Your task to perform on an android device: turn off notifications in google photos Image 0: 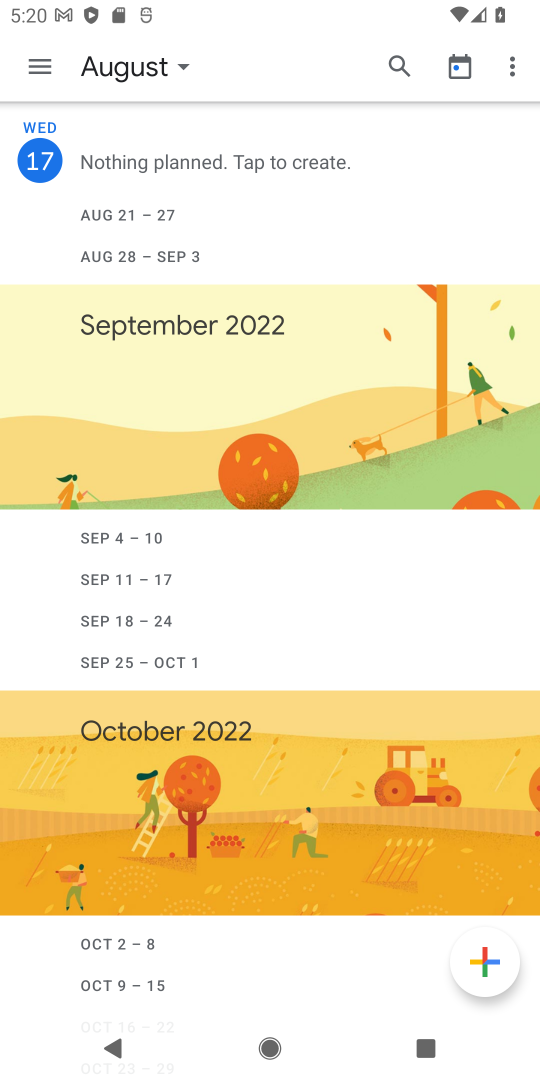
Step 0: press home button
Your task to perform on an android device: turn off notifications in google photos Image 1: 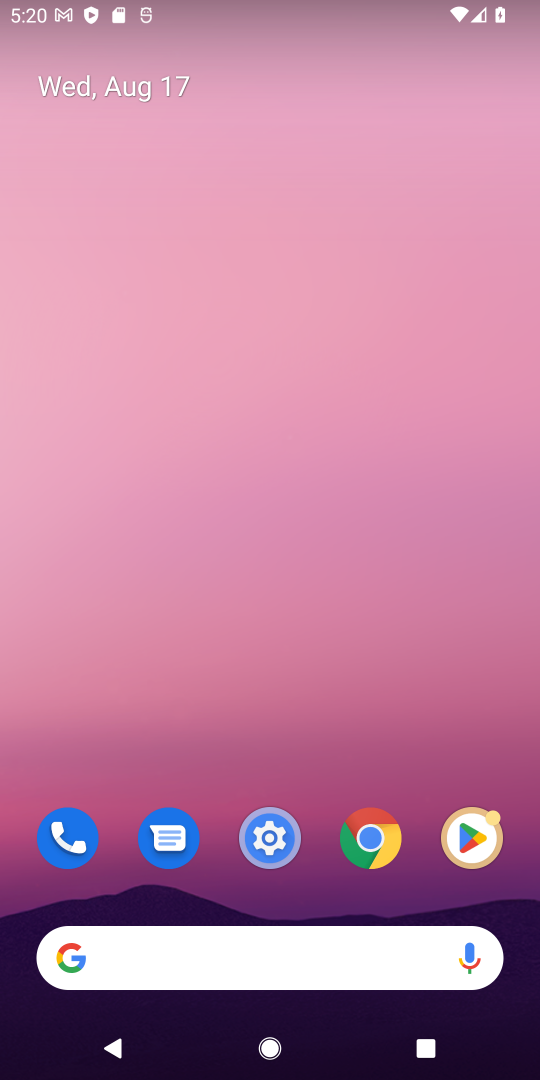
Step 1: click (517, 1014)
Your task to perform on an android device: turn off notifications in google photos Image 2: 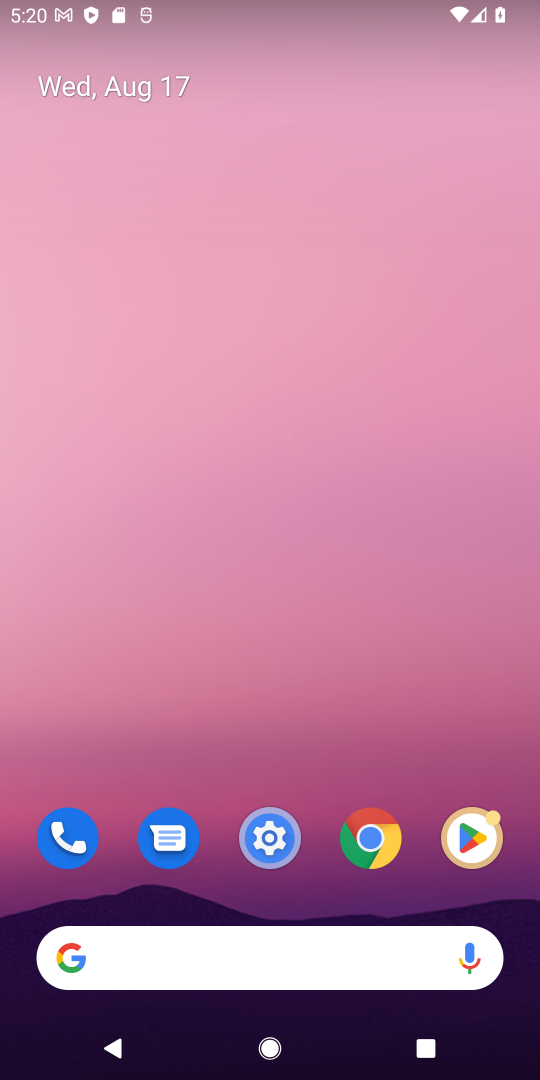
Step 2: drag from (326, 912) to (319, 11)
Your task to perform on an android device: turn off notifications in google photos Image 3: 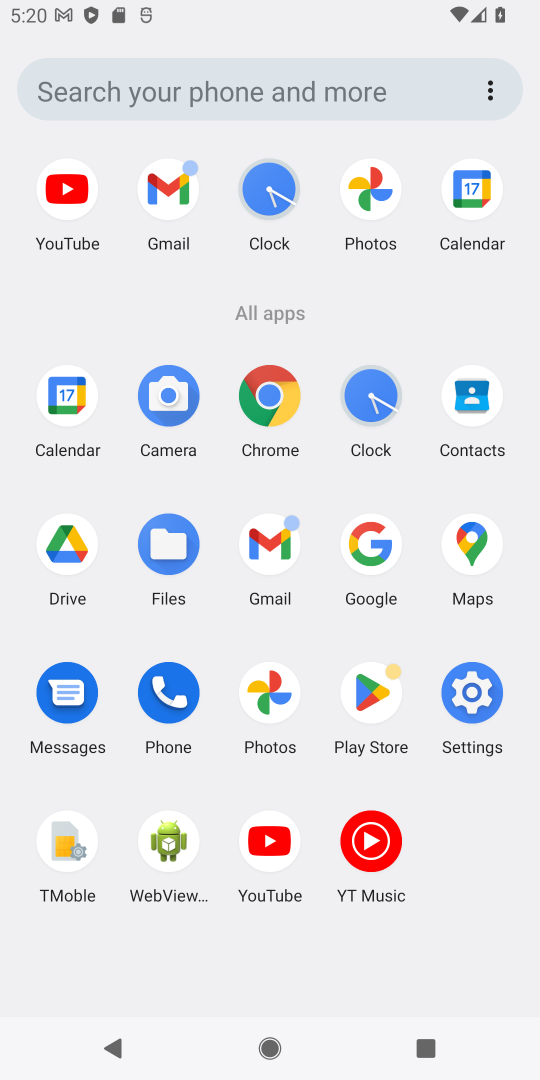
Step 3: click (259, 714)
Your task to perform on an android device: turn off notifications in google photos Image 4: 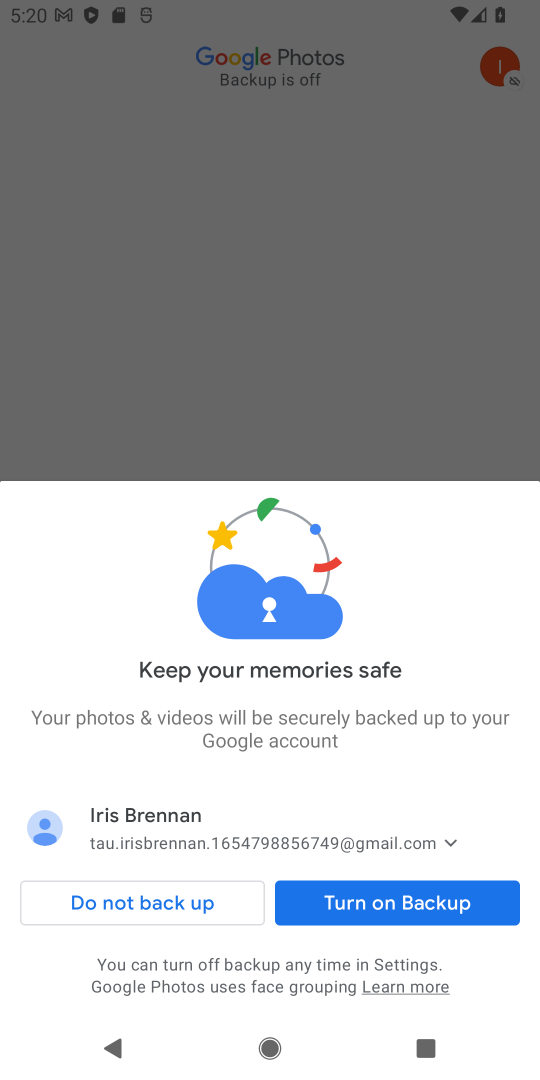
Step 4: click (512, 77)
Your task to perform on an android device: turn off notifications in google photos Image 5: 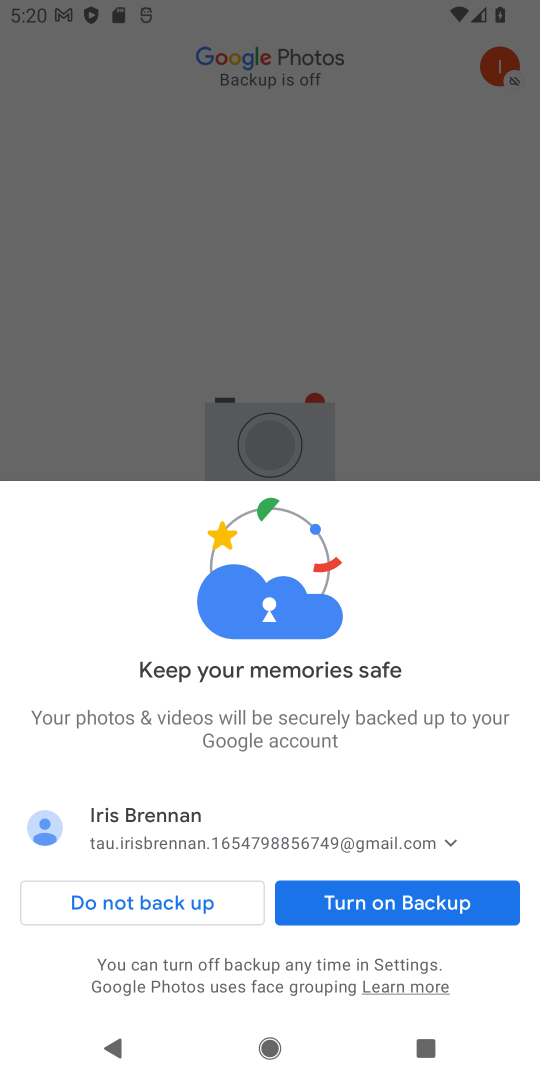
Step 5: click (373, 889)
Your task to perform on an android device: turn off notifications in google photos Image 6: 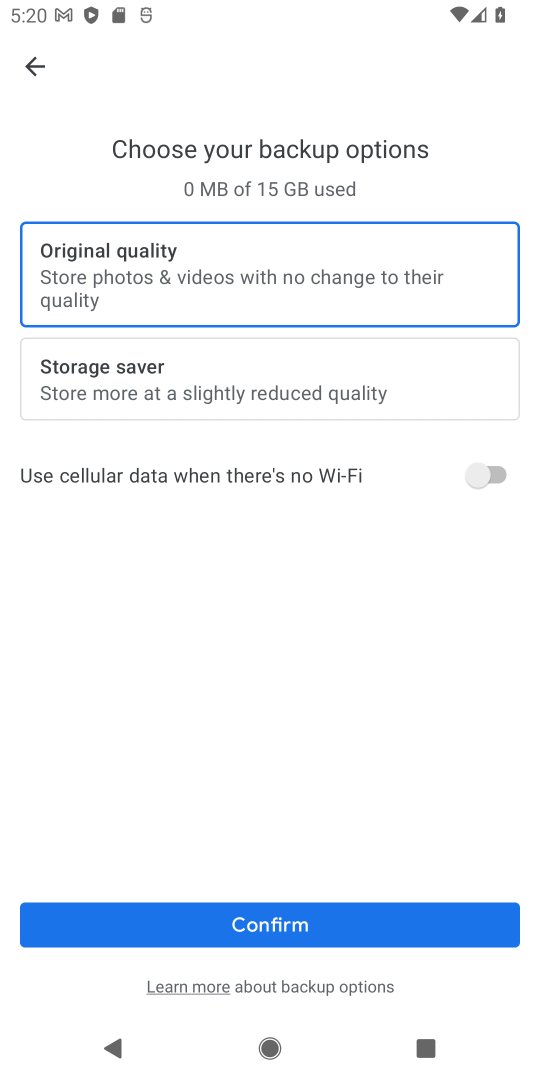
Step 6: click (326, 917)
Your task to perform on an android device: turn off notifications in google photos Image 7: 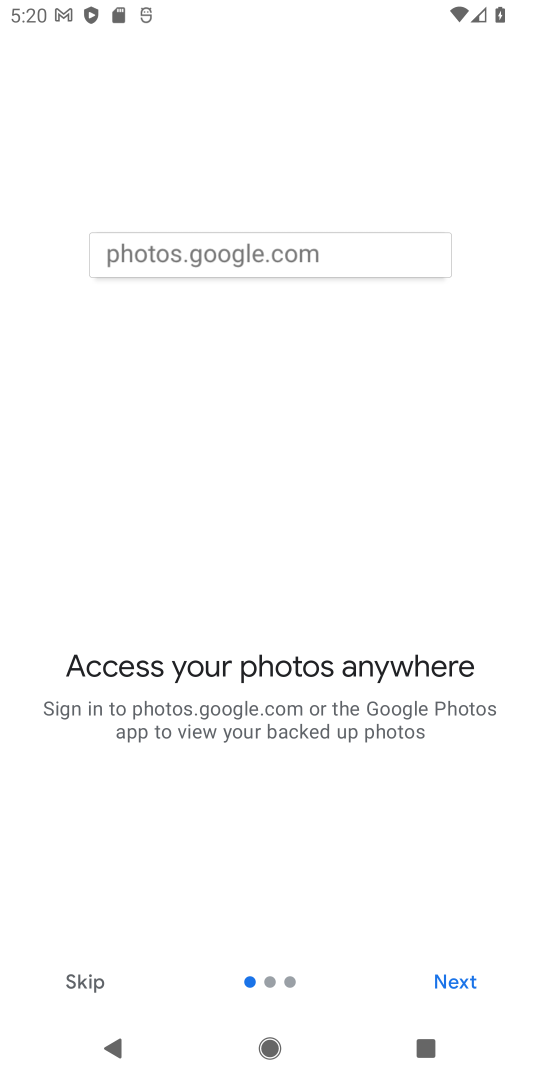
Step 7: click (64, 977)
Your task to perform on an android device: turn off notifications in google photos Image 8: 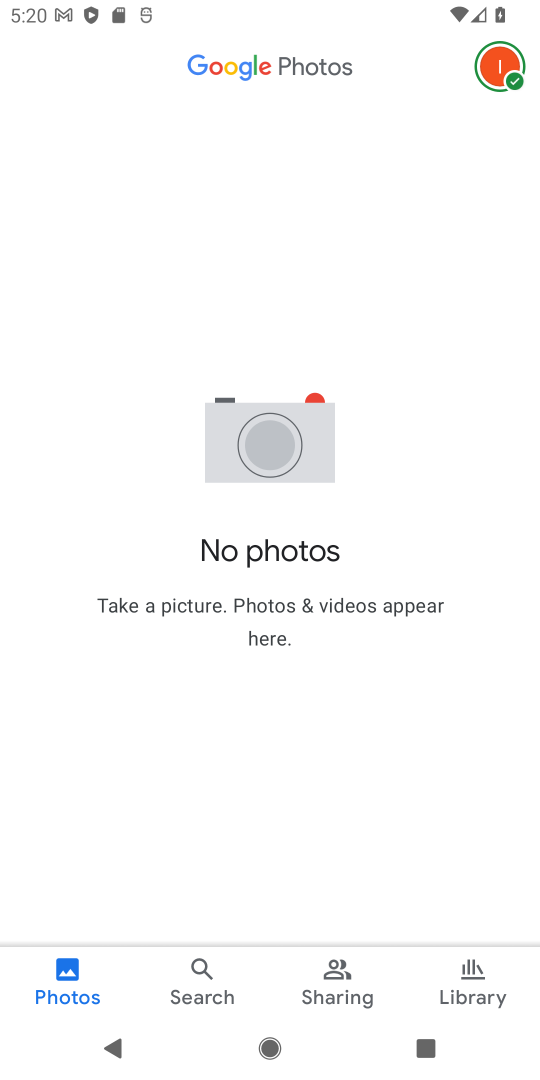
Step 8: click (503, 64)
Your task to perform on an android device: turn off notifications in google photos Image 9: 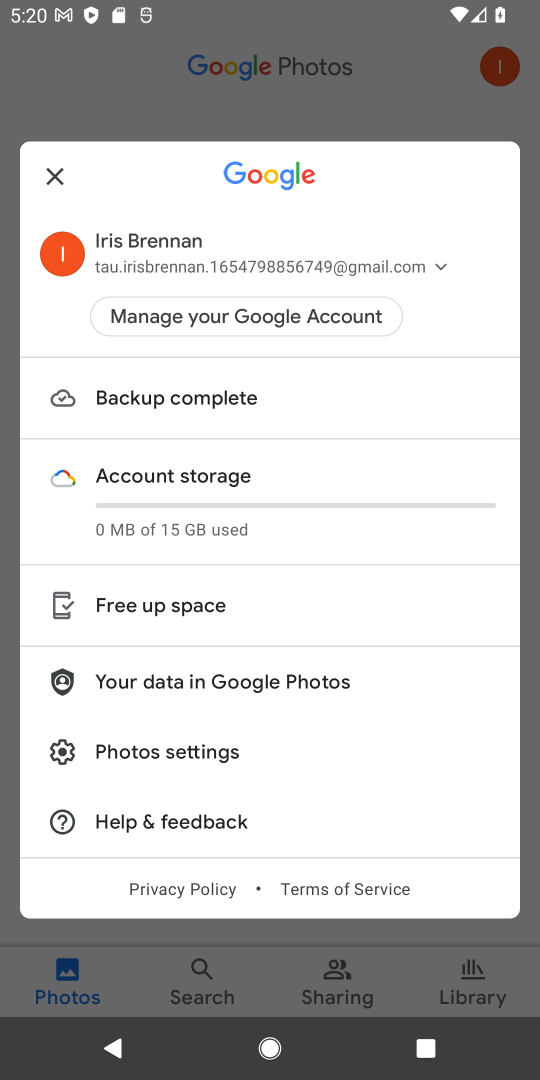
Step 9: click (85, 753)
Your task to perform on an android device: turn off notifications in google photos Image 10: 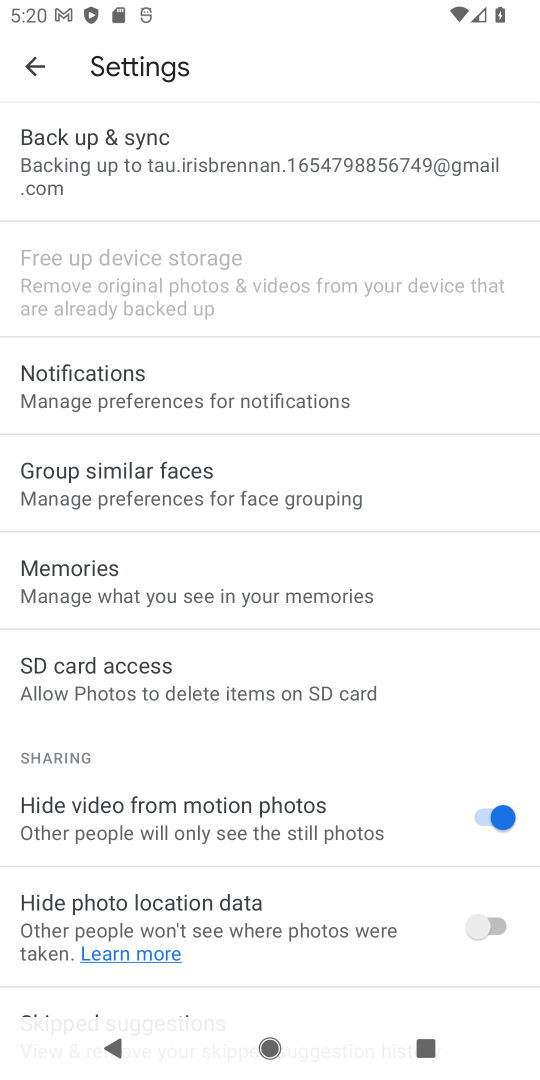
Step 10: click (84, 394)
Your task to perform on an android device: turn off notifications in google photos Image 11: 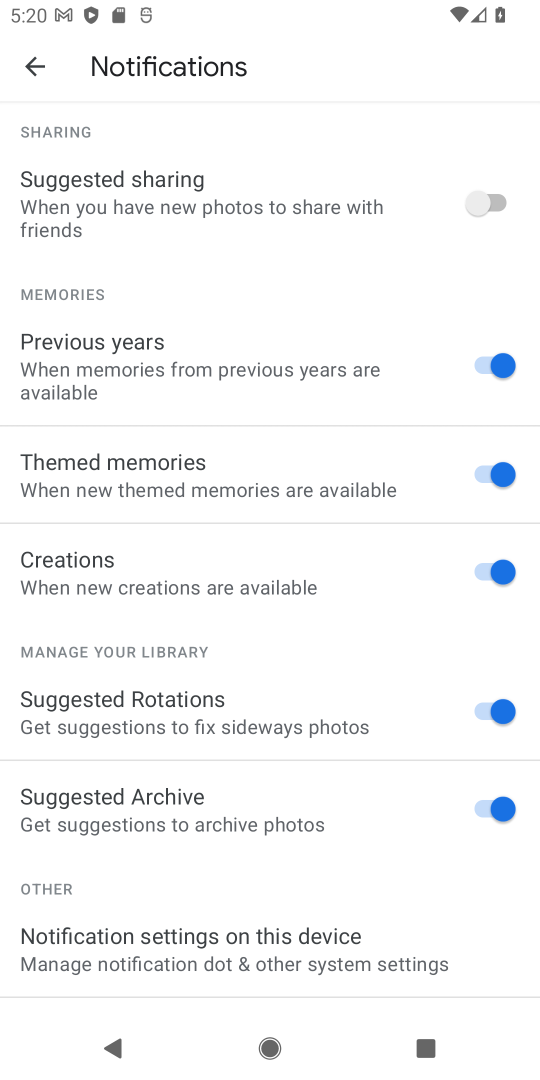
Step 11: click (186, 923)
Your task to perform on an android device: turn off notifications in google photos Image 12: 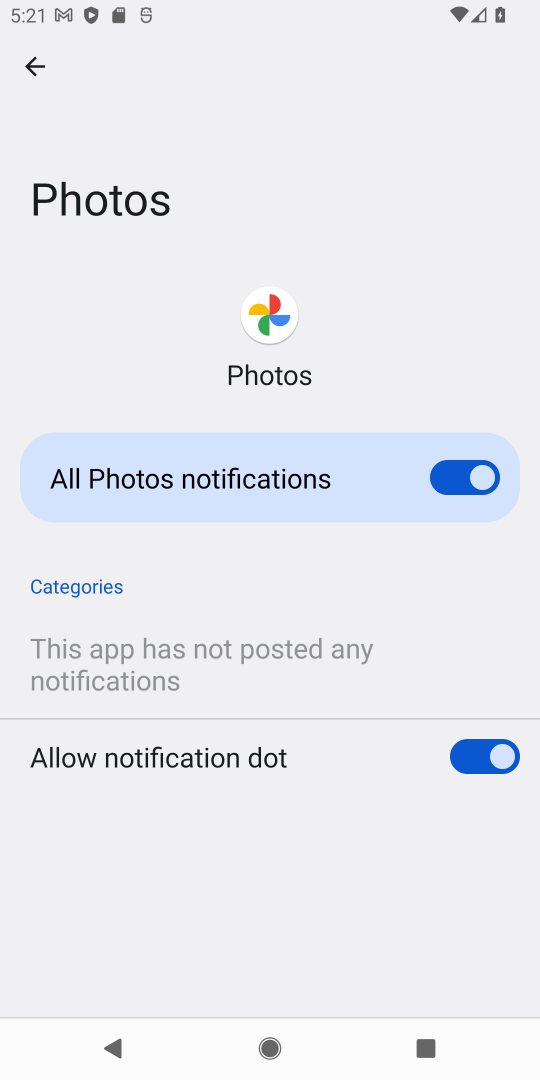
Step 12: click (470, 470)
Your task to perform on an android device: turn off notifications in google photos Image 13: 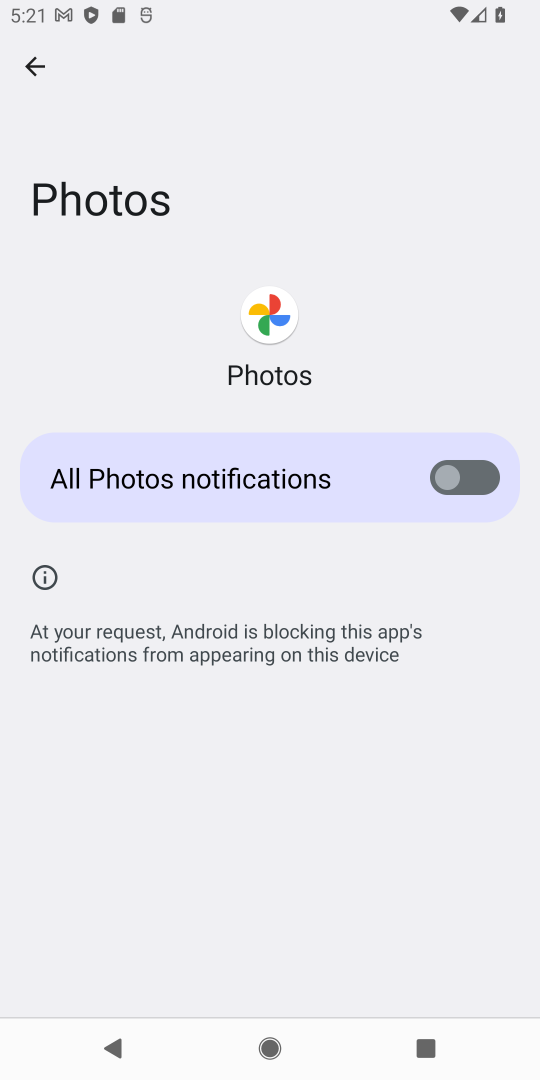
Step 13: task complete